Your task to perform on an android device: Open accessibility settings Image 0: 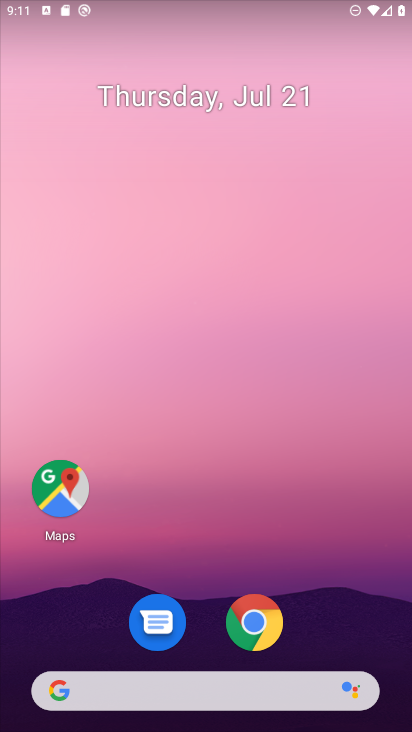
Step 0: drag from (230, 644) to (149, 6)
Your task to perform on an android device: Open accessibility settings Image 1: 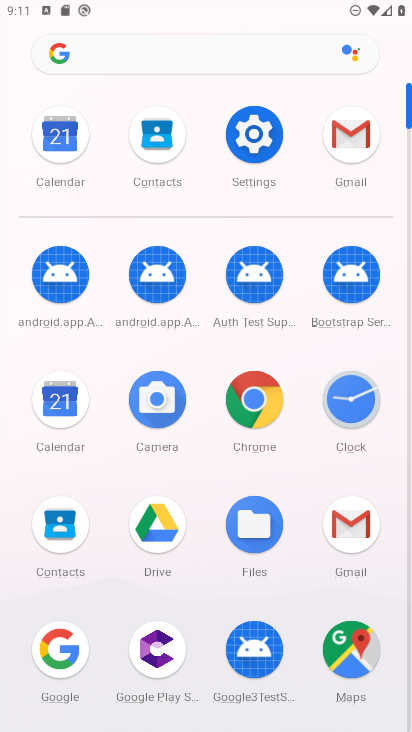
Step 1: click (265, 188)
Your task to perform on an android device: Open accessibility settings Image 2: 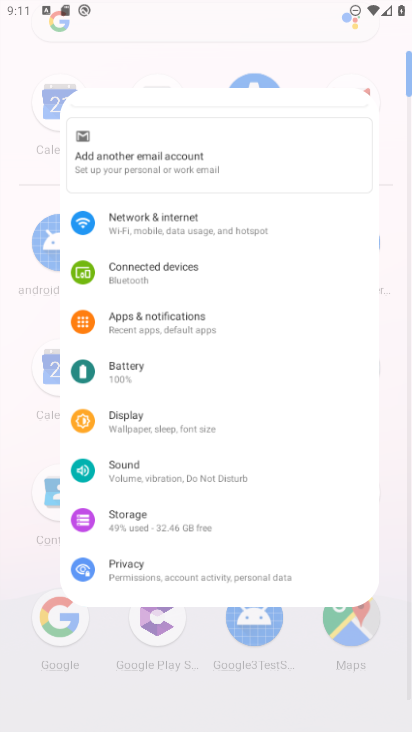
Step 2: click (263, 155)
Your task to perform on an android device: Open accessibility settings Image 3: 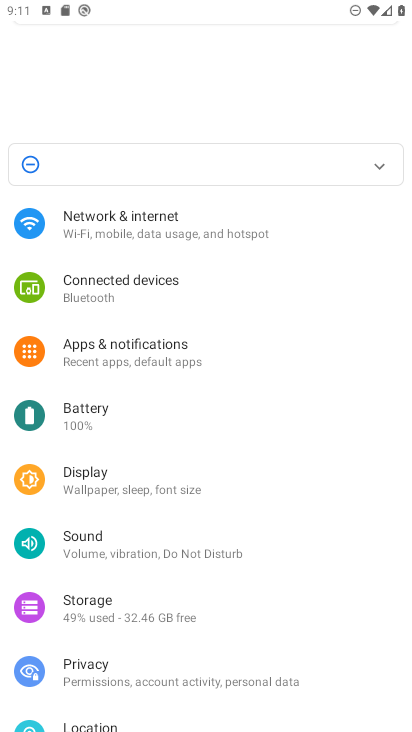
Step 3: drag from (261, 591) to (67, 66)
Your task to perform on an android device: Open accessibility settings Image 4: 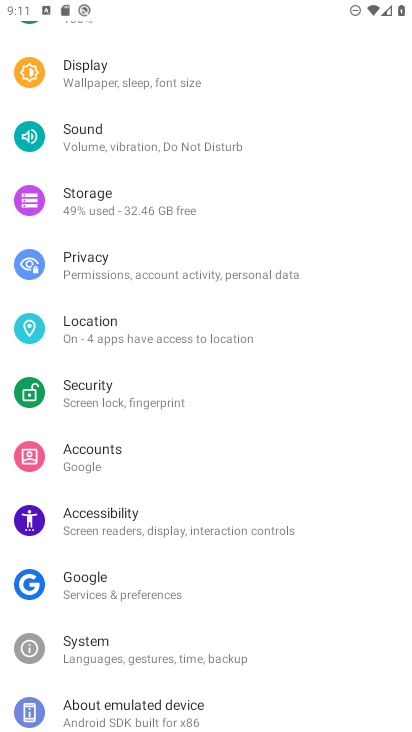
Step 4: click (244, 526)
Your task to perform on an android device: Open accessibility settings Image 5: 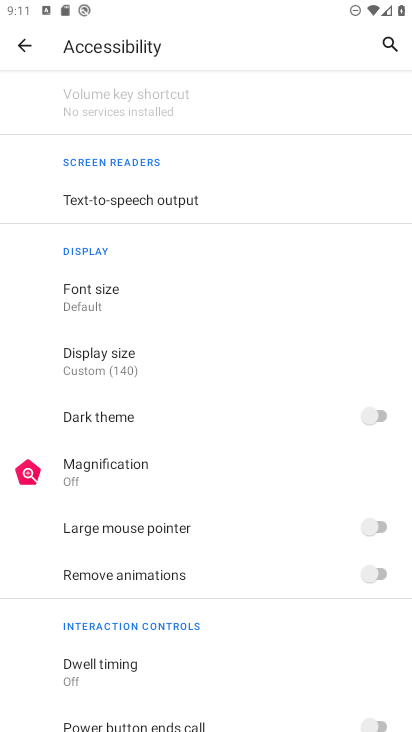
Step 5: task complete